Your task to perform on an android device: Search for logitech g502 on amazon.com, select the first entry, add it to the cart, then select checkout. Image 0: 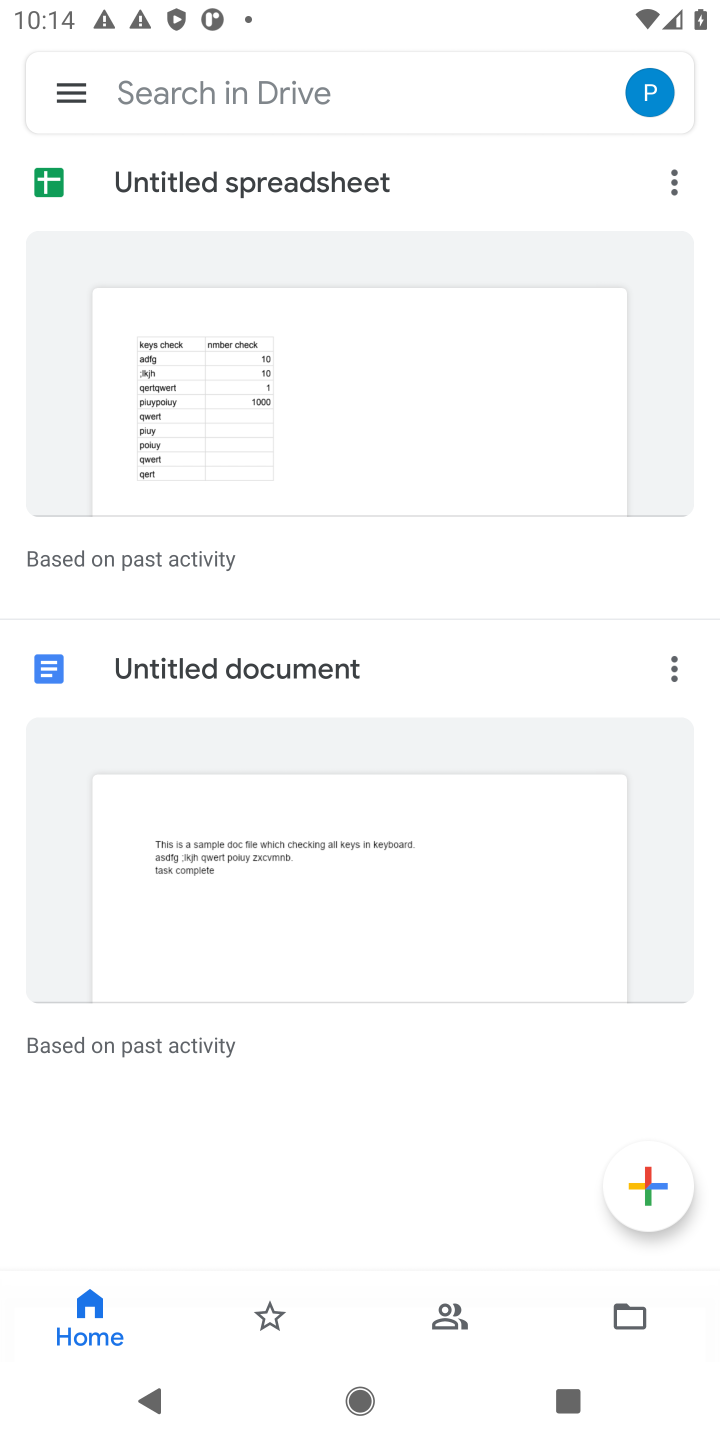
Step 0: press home button
Your task to perform on an android device: Search for logitech g502 on amazon.com, select the first entry, add it to the cart, then select checkout. Image 1: 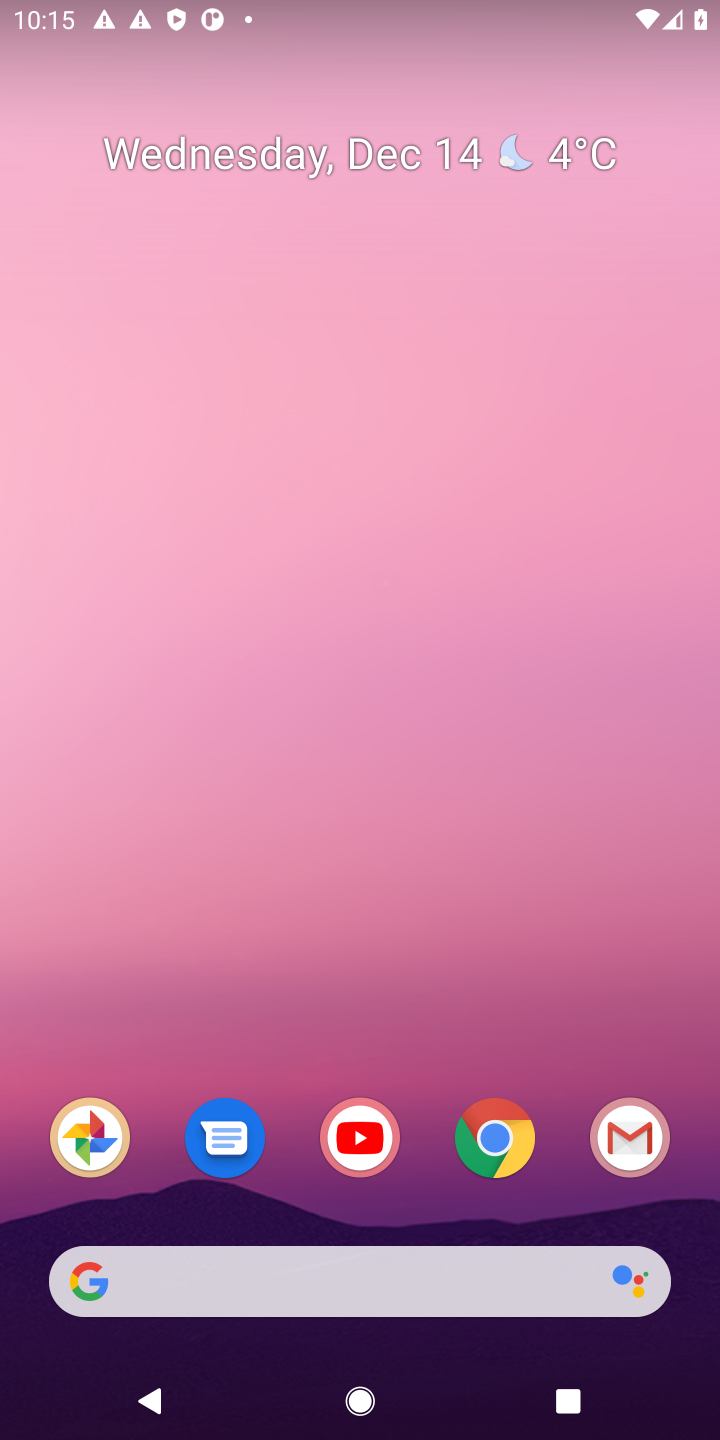
Step 1: click (514, 1155)
Your task to perform on an android device: Search for logitech g502 on amazon.com, select the first entry, add it to the cart, then select checkout. Image 2: 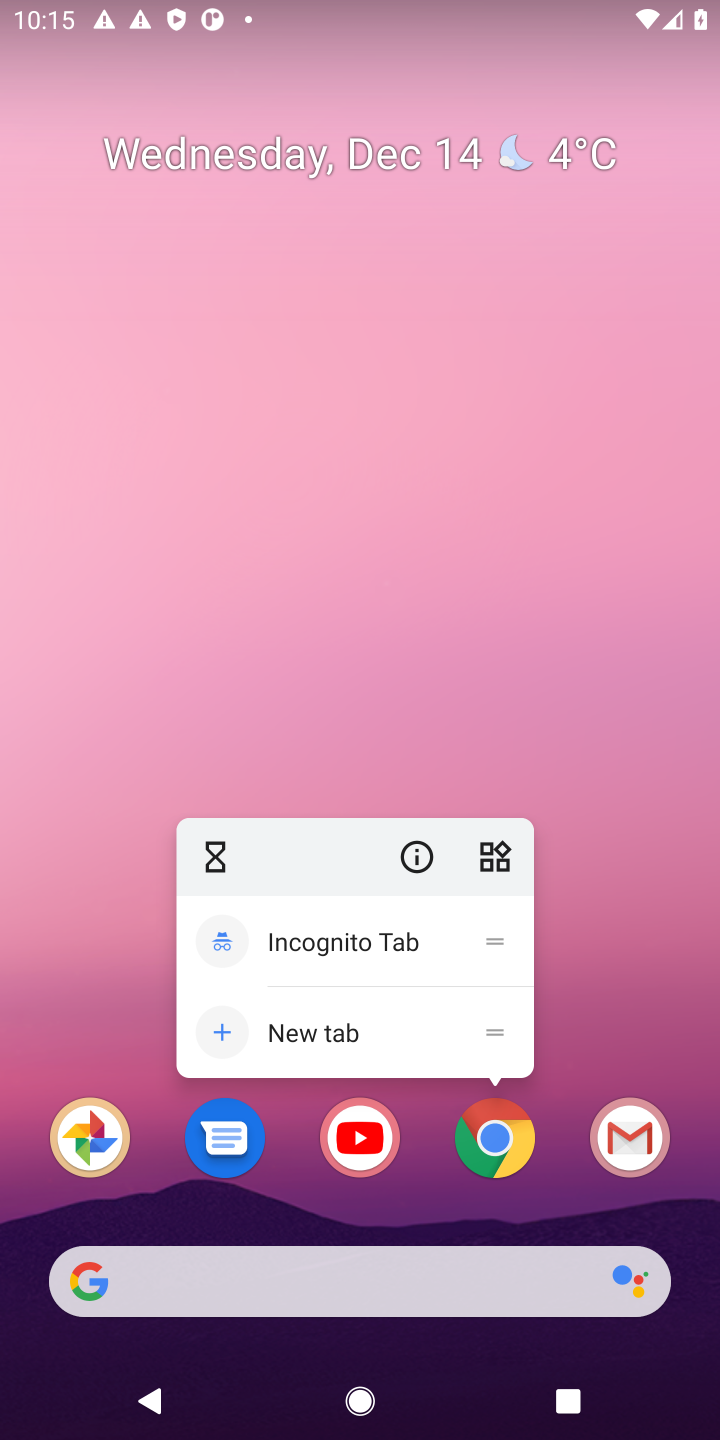
Step 2: click (501, 1141)
Your task to perform on an android device: Search for logitech g502 on amazon.com, select the first entry, add it to the cart, then select checkout. Image 3: 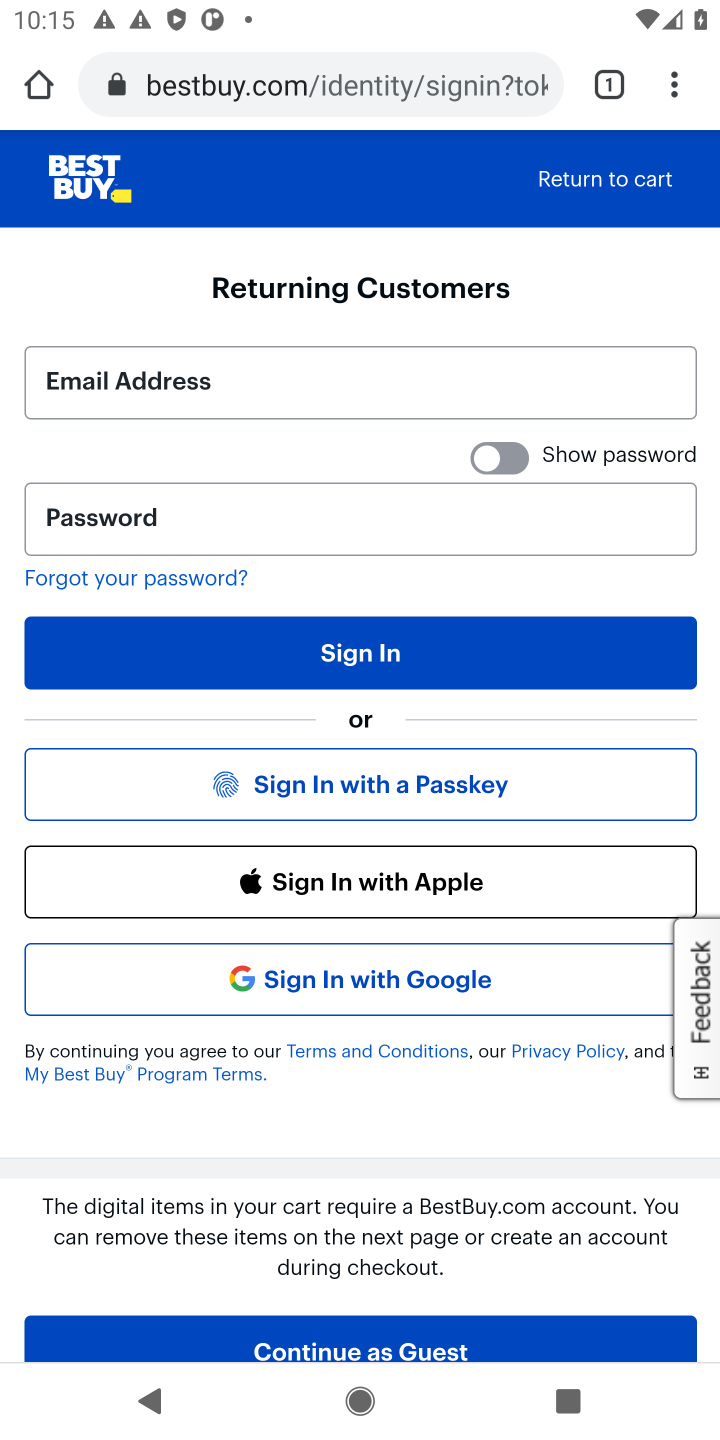
Step 3: click (415, 71)
Your task to perform on an android device: Search for logitech g502 on amazon.com, select the first entry, add it to the cart, then select checkout. Image 4: 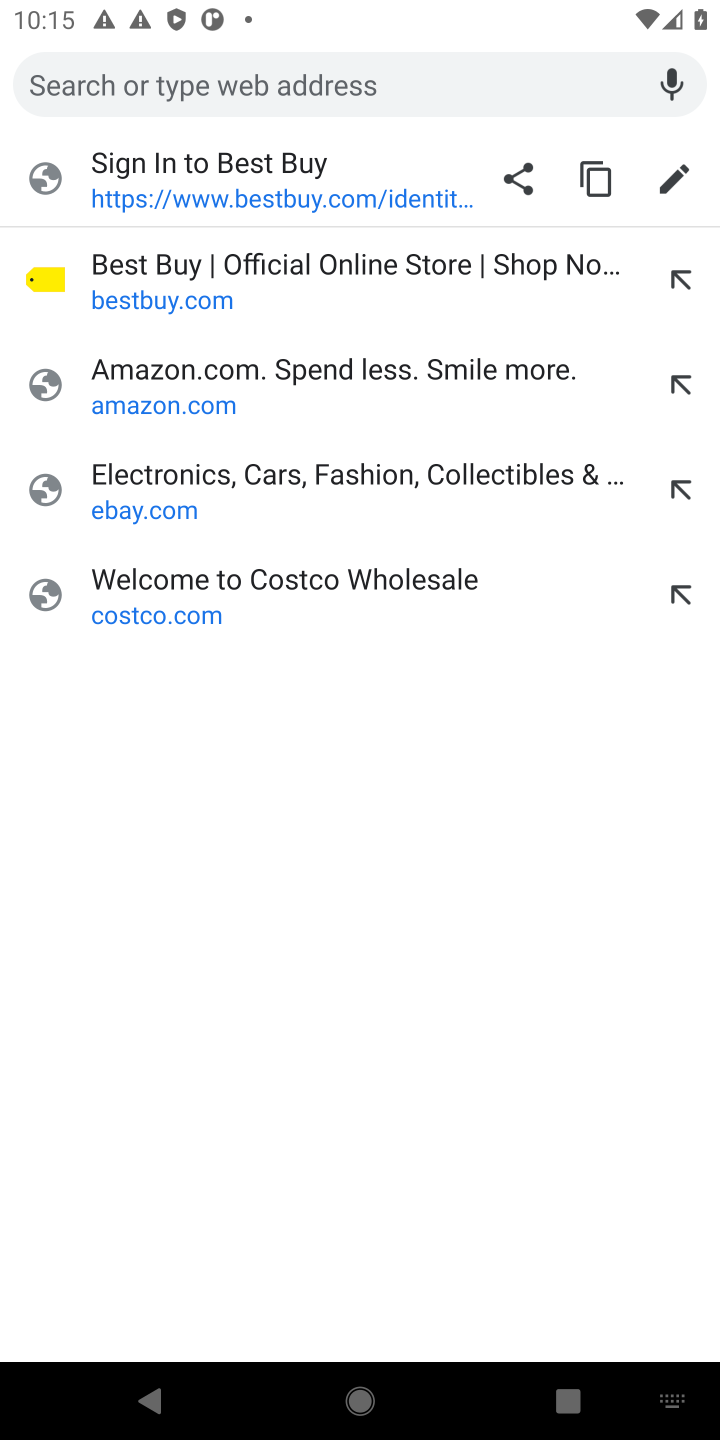
Step 4: click (415, 71)
Your task to perform on an android device: Search for logitech g502 on amazon.com, select the first entry, add it to the cart, then select checkout. Image 5: 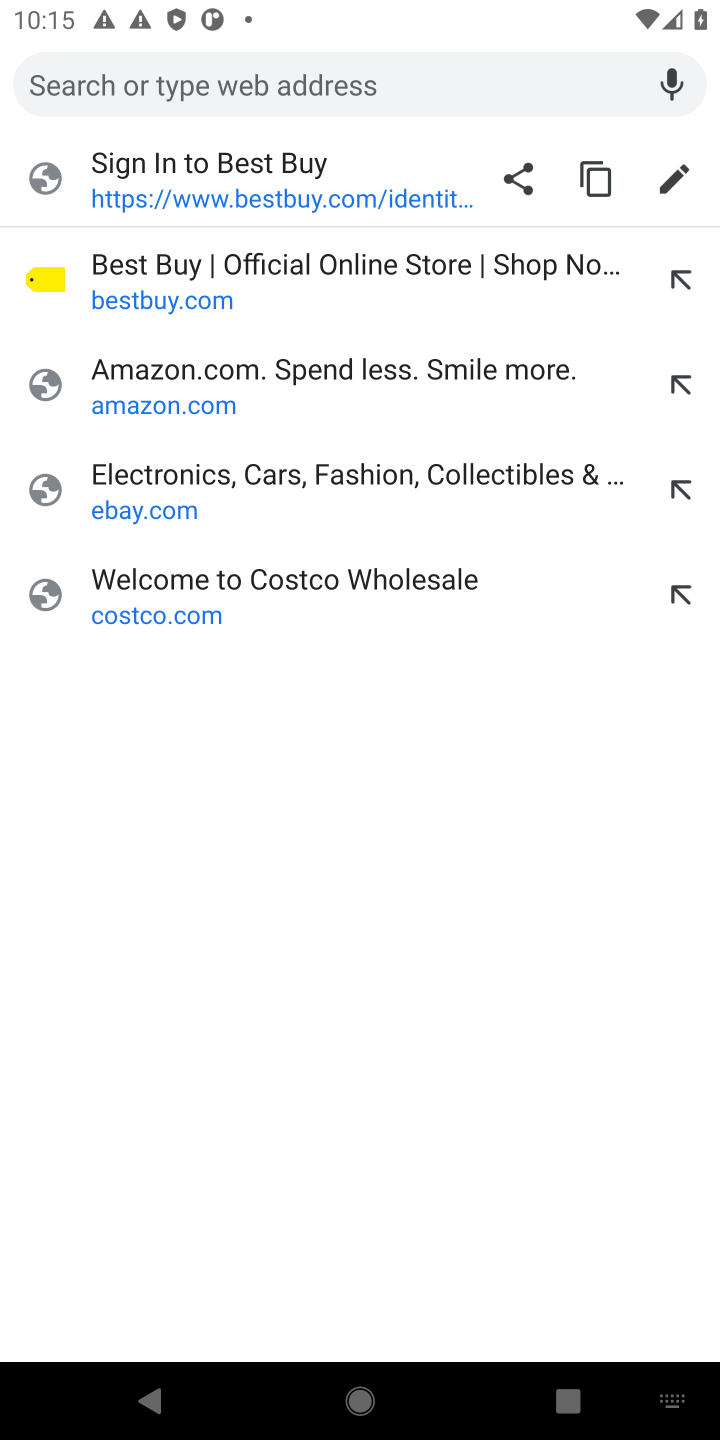
Step 5: click (162, 395)
Your task to perform on an android device: Search for logitech g502 on amazon.com, select the first entry, add it to the cart, then select checkout. Image 6: 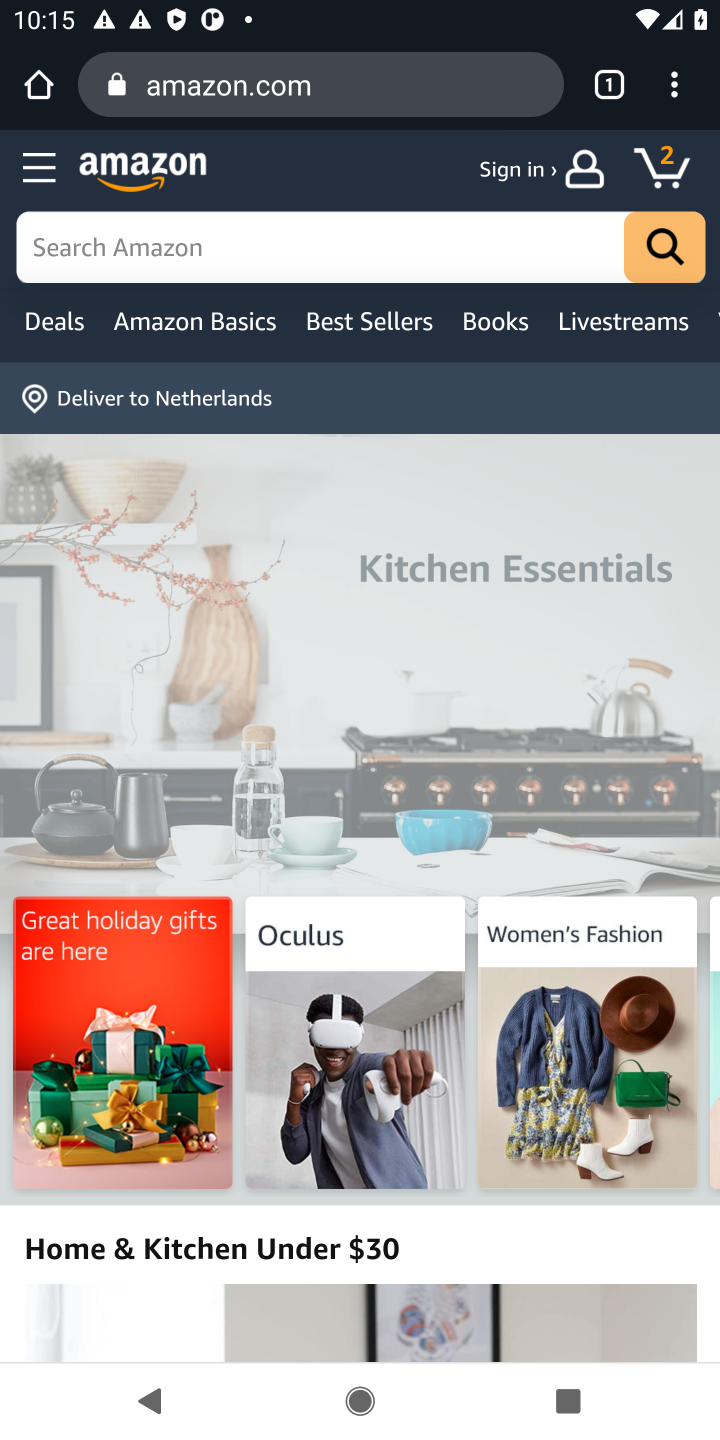
Step 6: click (144, 255)
Your task to perform on an android device: Search for logitech g502 on amazon.com, select the first entry, add it to the cart, then select checkout. Image 7: 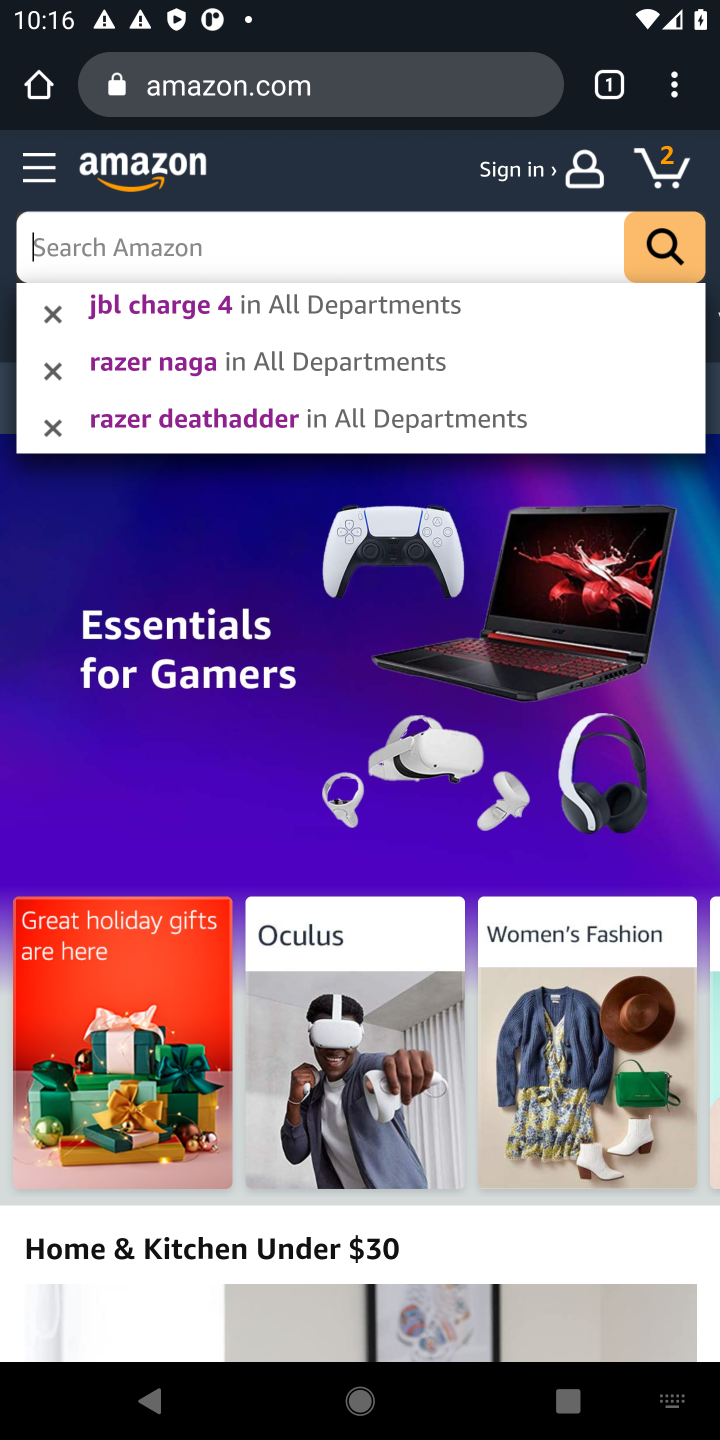
Step 7: type " logitech g502"
Your task to perform on an android device: Search for logitech g502 on amazon.com, select the first entry, add it to the cart, then select checkout. Image 8: 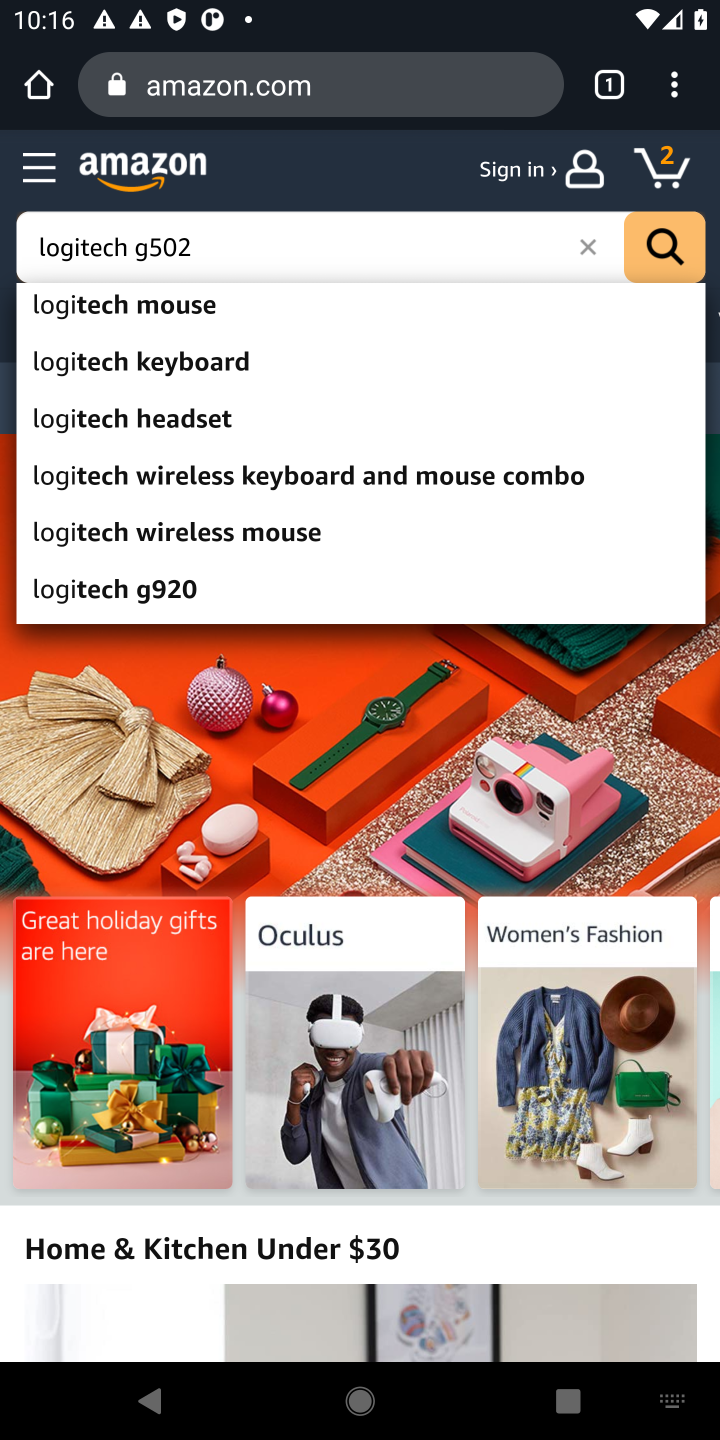
Step 8: click (673, 247)
Your task to perform on an android device: Search for logitech g502 on amazon.com, select the first entry, add it to the cart, then select checkout. Image 9: 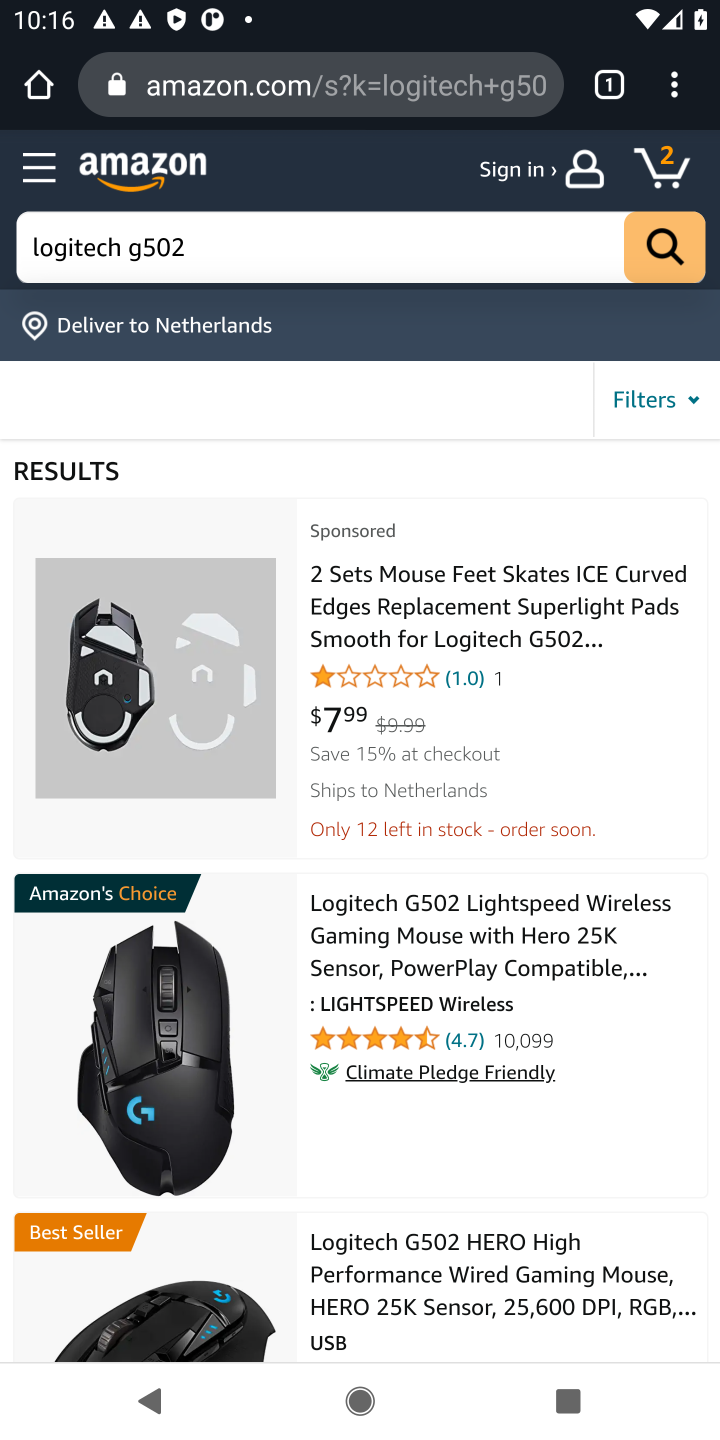
Step 9: click (416, 615)
Your task to perform on an android device: Search for logitech g502 on amazon.com, select the first entry, add it to the cart, then select checkout. Image 10: 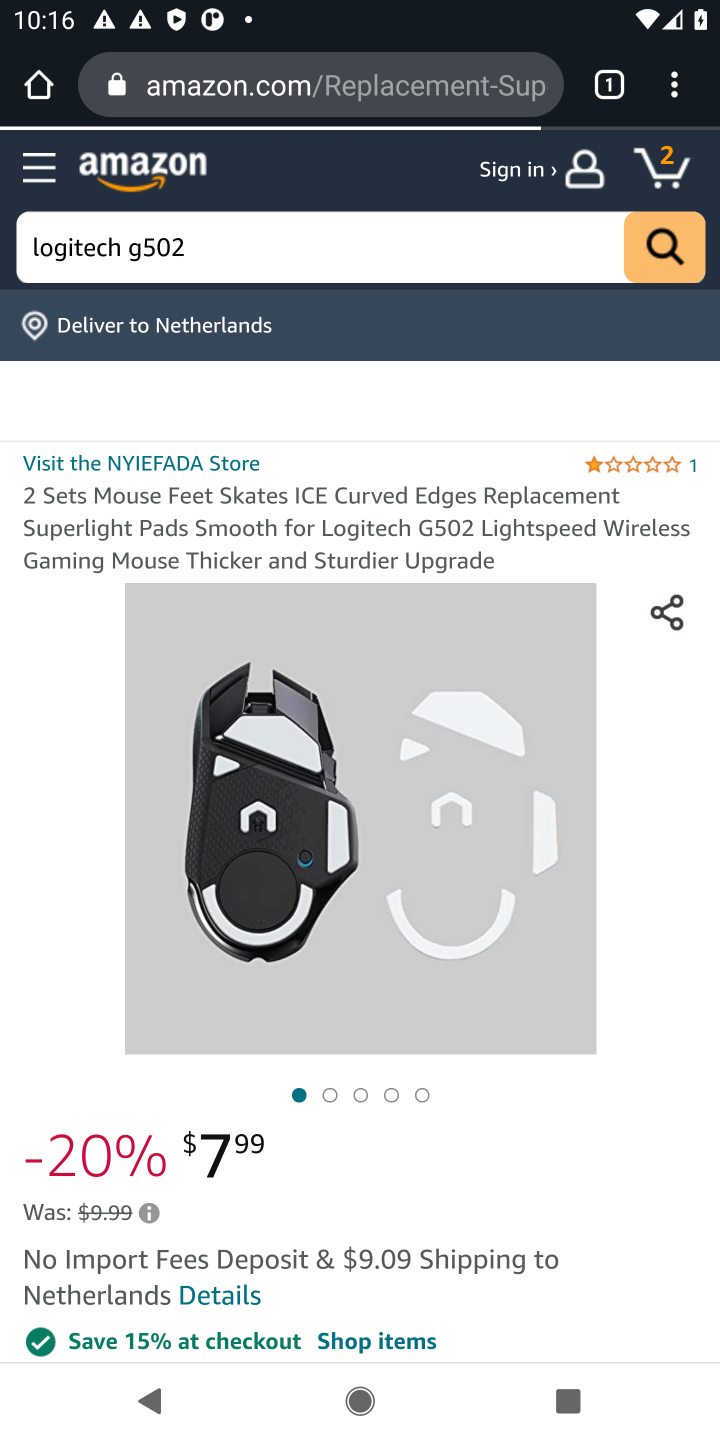
Step 10: drag from (312, 982) to (299, 339)
Your task to perform on an android device: Search for logitech g502 on amazon.com, select the first entry, add it to the cart, then select checkout. Image 11: 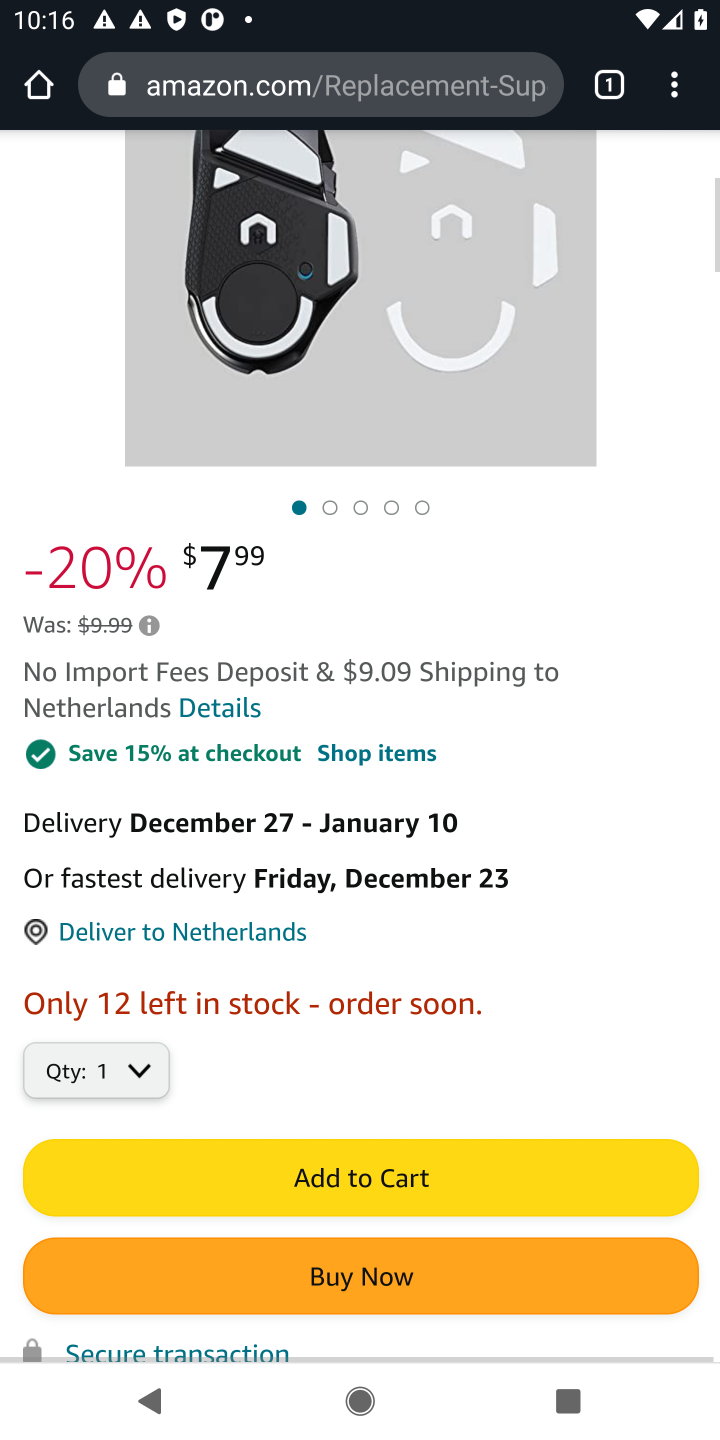
Step 11: drag from (256, 992) to (254, 624)
Your task to perform on an android device: Search for logitech g502 on amazon.com, select the first entry, add it to the cart, then select checkout. Image 12: 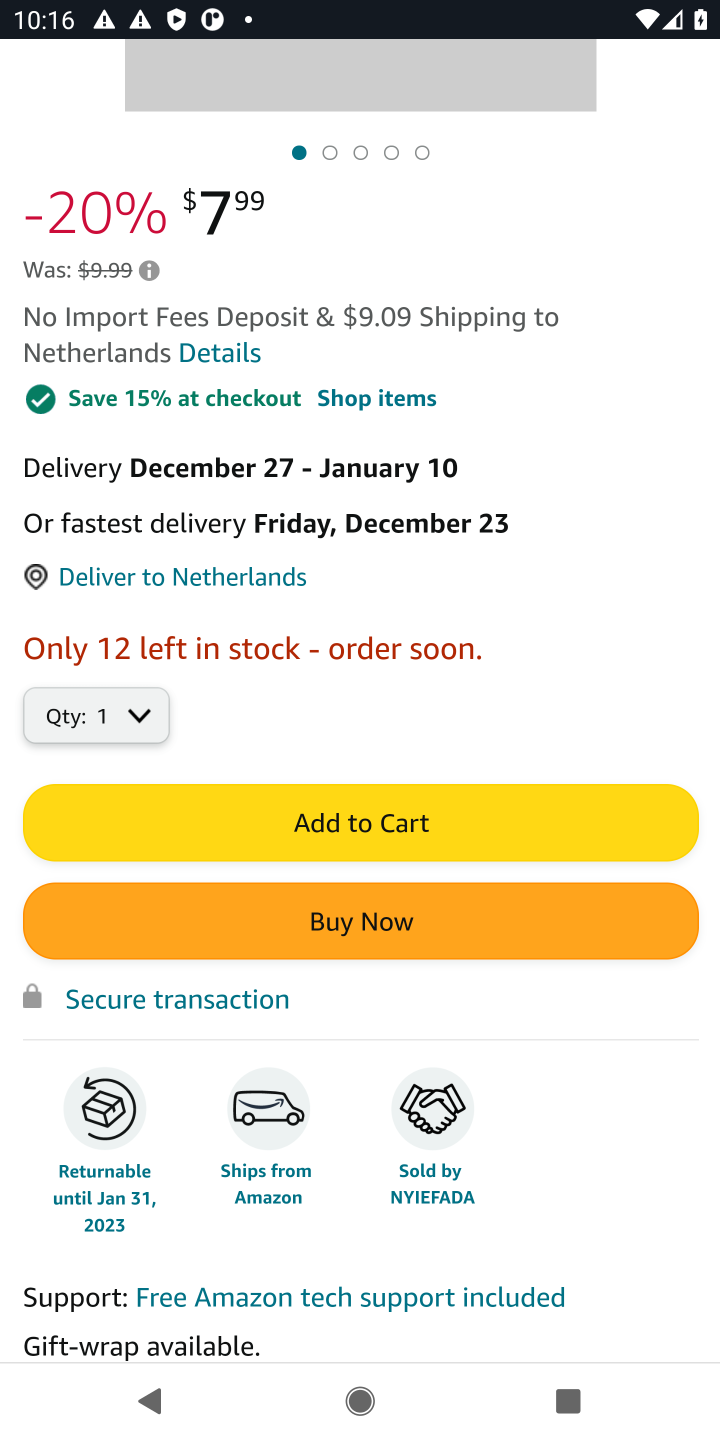
Step 12: click (313, 985)
Your task to perform on an android device: Search for logitech g502 on amazon.com, select the first entry, add it to the cart, then select checkout. Image 13: 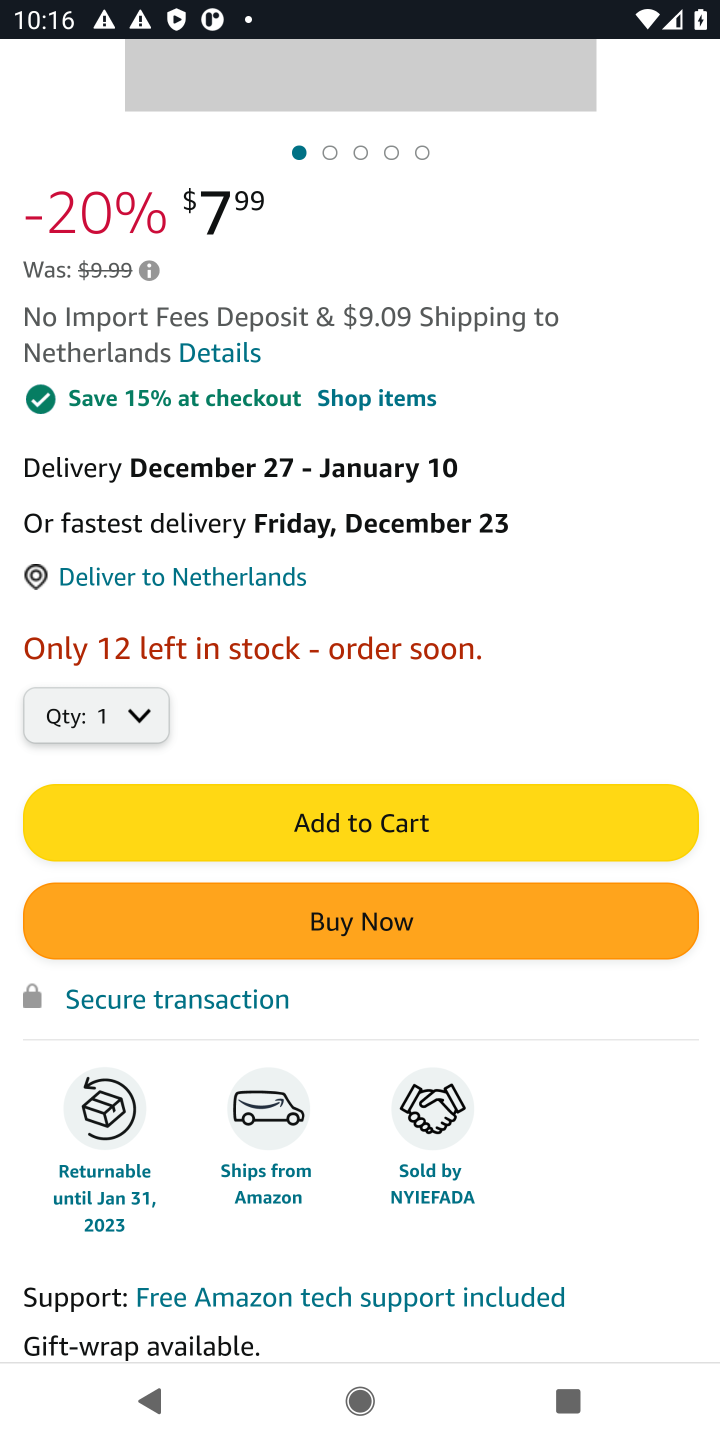
Step 13: click (319, 837)
Your task to perform on an android device: Search for logitech g502 on amazon.com, select the first entry, add it to the cart, then select checkout. Image 14: 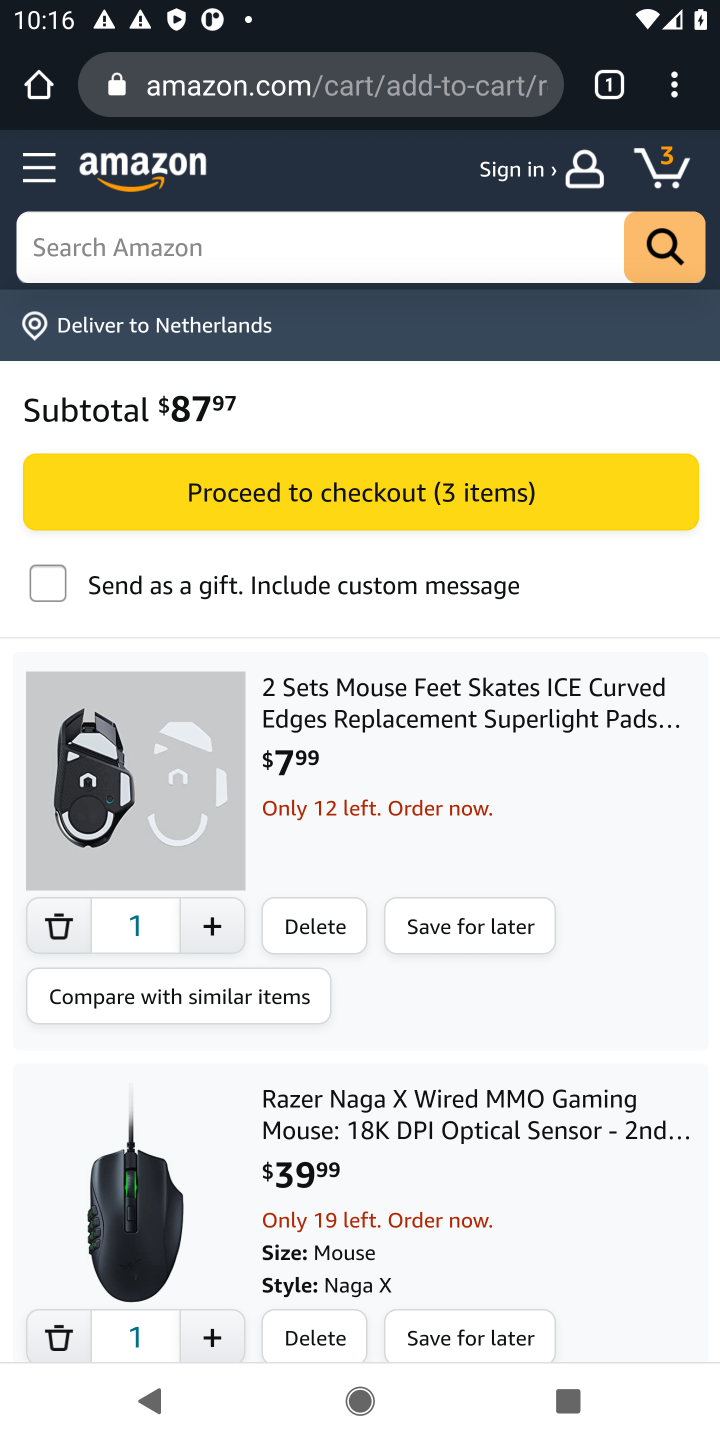
Step 14: click (317, 505)
Your task to perform on an android device: Search for logitech g502 on amazon.com, select the first entry, add it to the cart, then select checkout. Image 15: 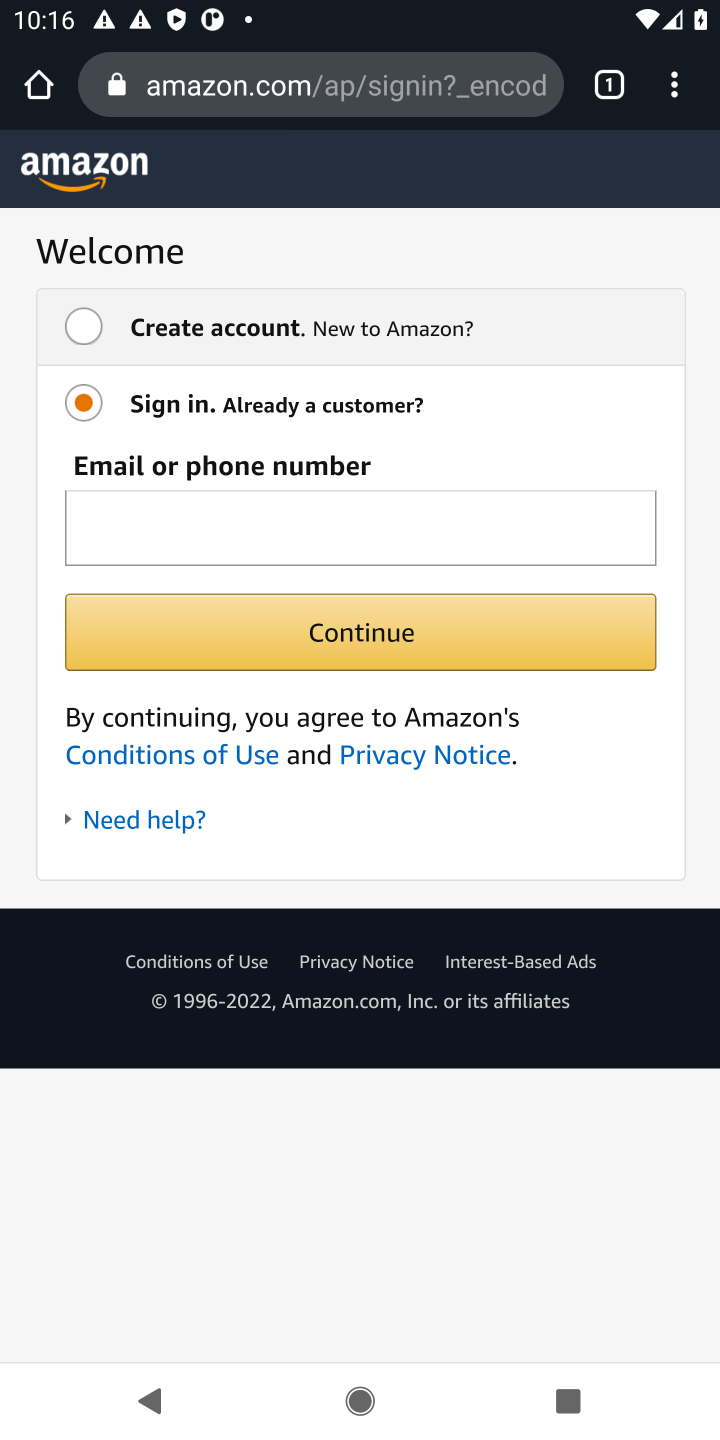
Step 15: task complete